Your task to perform on an android device: toggle location history Image 0: 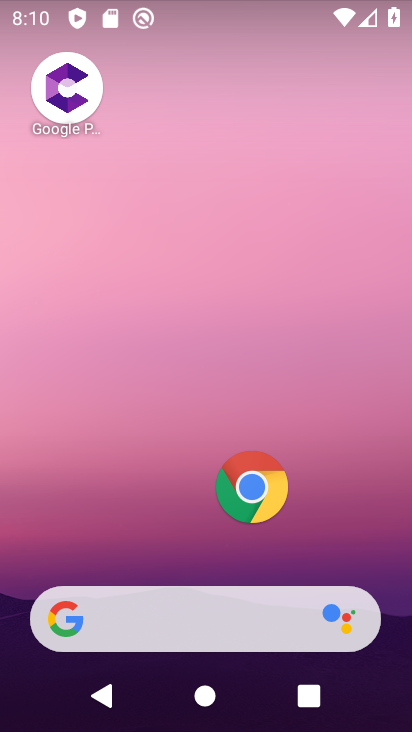
Step 0: drag from (130, 536) to (220, 88)
Your task to perform on an android device: toggle location history Image 1: 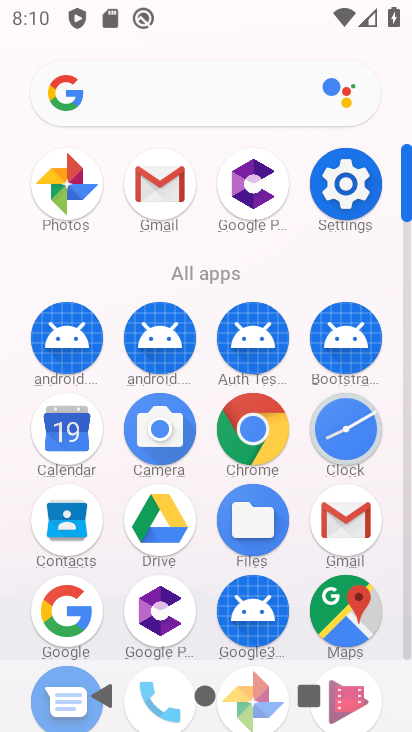
Step 1: click (355, 197)
Your task to perform on an android device: toggle location history Image 2: 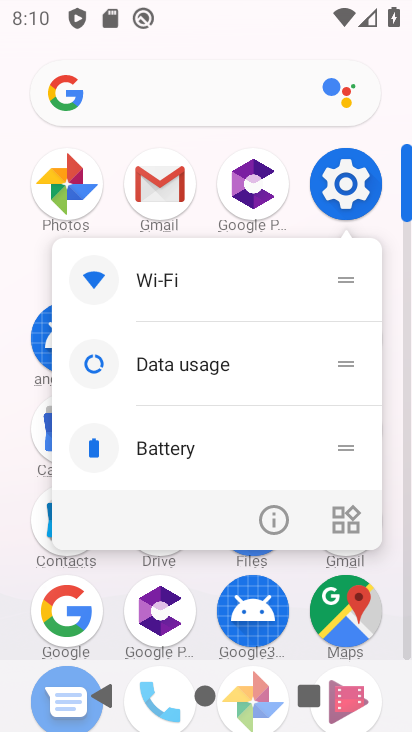
Step 2: click (353, 180)
Your task to perform on an android device: toggle location history Image 3: 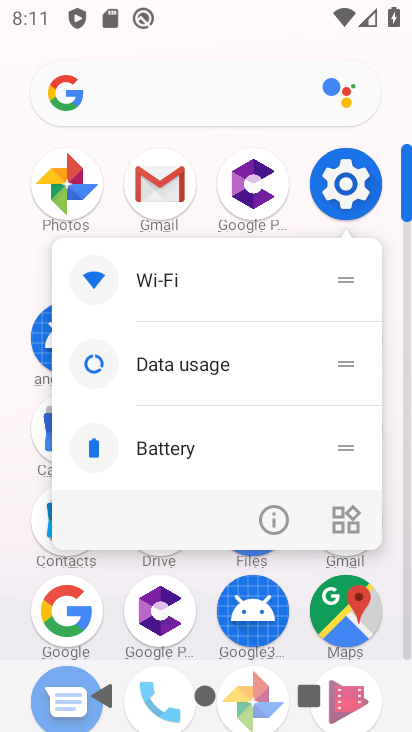
Step 3: click (342, 199)
Your task to perform on an android device: toggle location history Image 4: 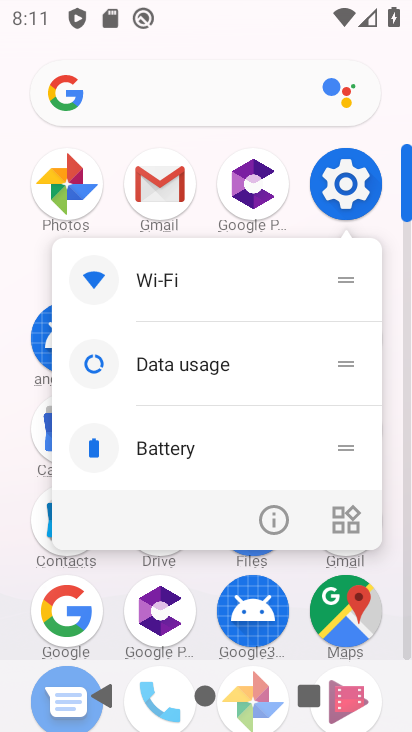
Step 4: click (333, 147)
Your task to perform on an android device: toggle location history Image 5: 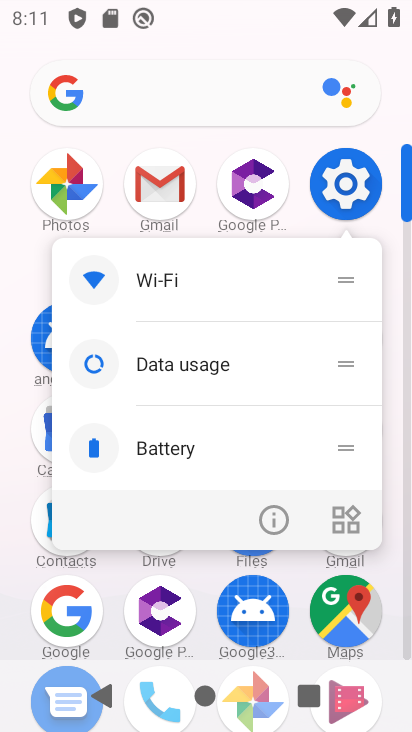
Step 5: click (350, 178)
Your task to perform on an android device: toggle location history Image 6: 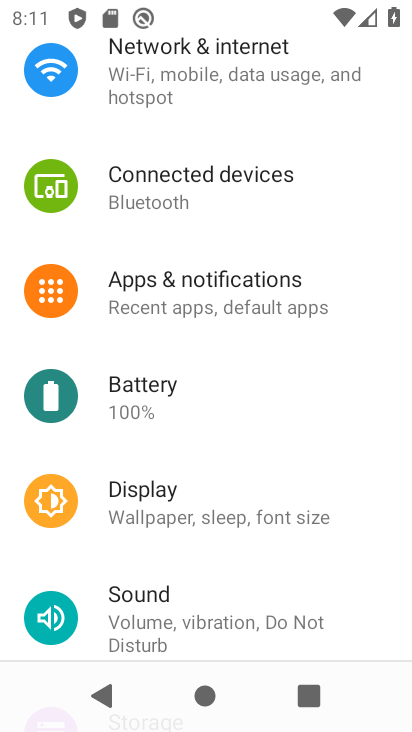
Step 6: drag from (200, 640) to (322, 203)
Your task to perform on an android device: toggle location history Image 7: 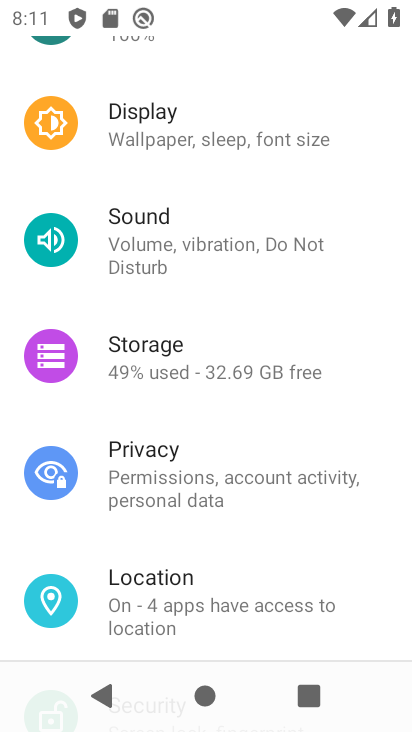
Step 7: click (182, 601)
Your task to perform on an android device: toggle location history Image 8: 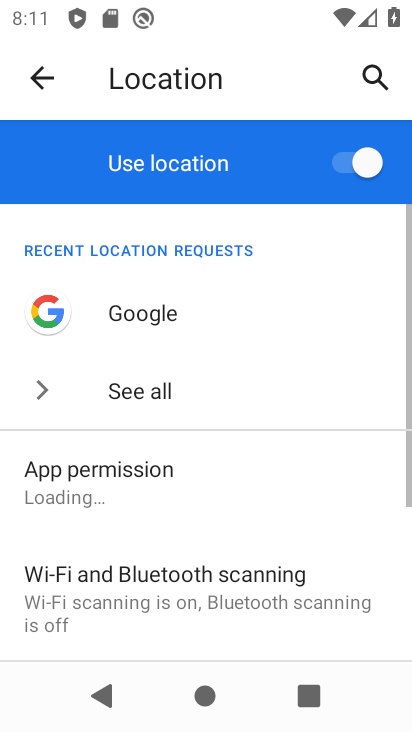
Step 8: drag from (201, 595) to (321, 179)
Your task to perform on an android device: toggle location history Image 9: 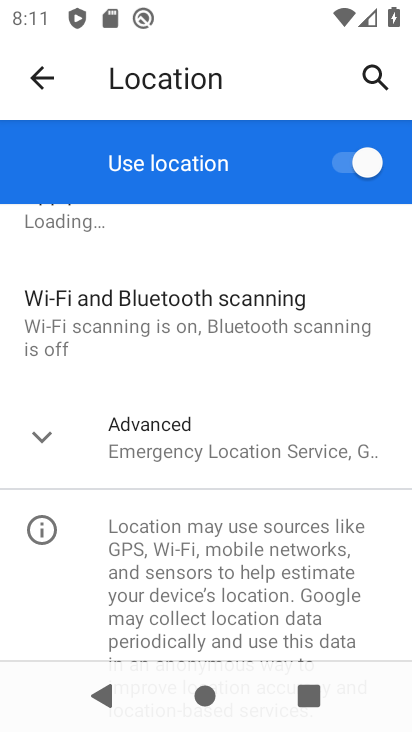
Step 9: click (235, 445)
Your task to perform on an android device: toggle location history Image 10: 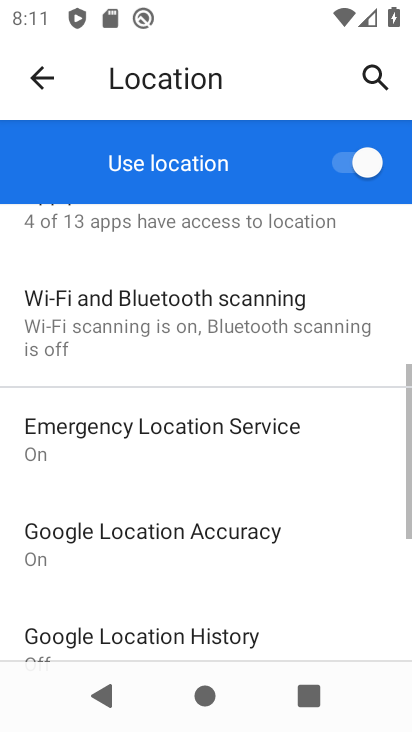
Step 10: drag from (238, 597) to (322, 310)
Your task to perform on an android device: toggle location history Image 11: 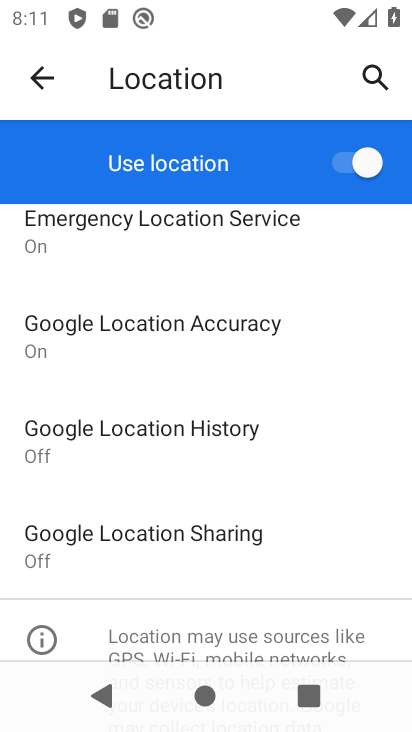
Step 11: click (163, 453)
Your task to perform on an android device: toggle location history Image 12: 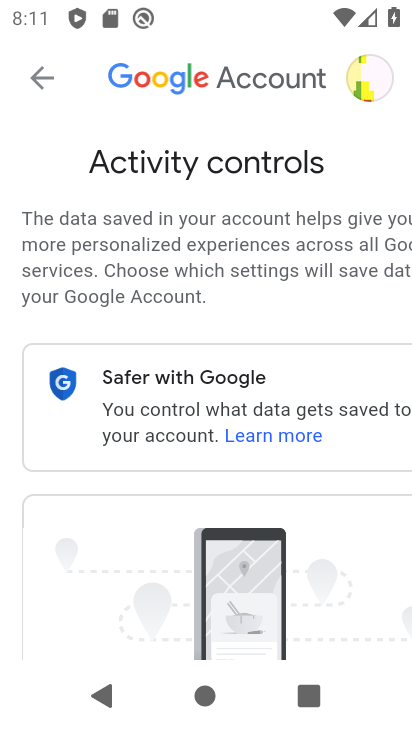
Step 12: drag from (297, 538) to (348, 289)
Your task to perform on an android device: toggle location history Image 13: 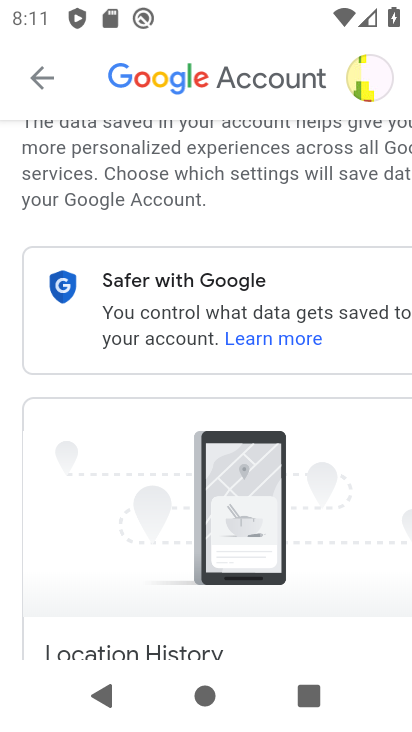
Step 13: drag from (351, 533) to (409, 244)
Your task to perform on an android device: toggle location history Image 14: 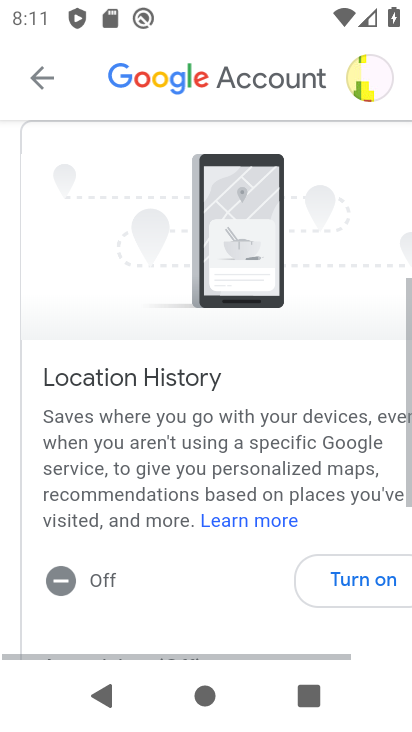
Step 14: click (367, 545)
Your task to perform on an android device: toggle location history Image 15: 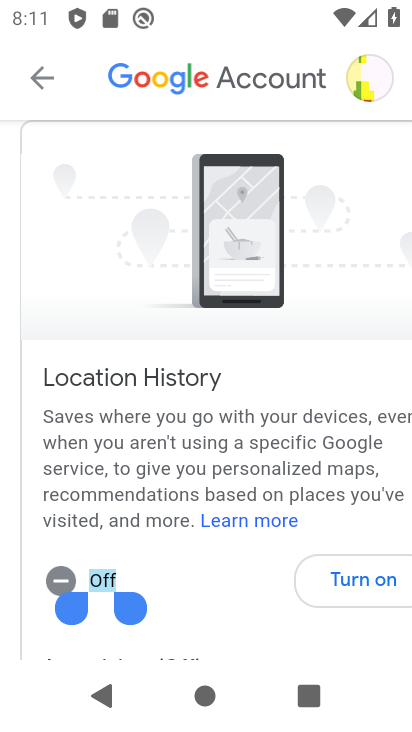
Step 15: click (362, 574)
Your task to perform on an android device: toggle location history Image 16: 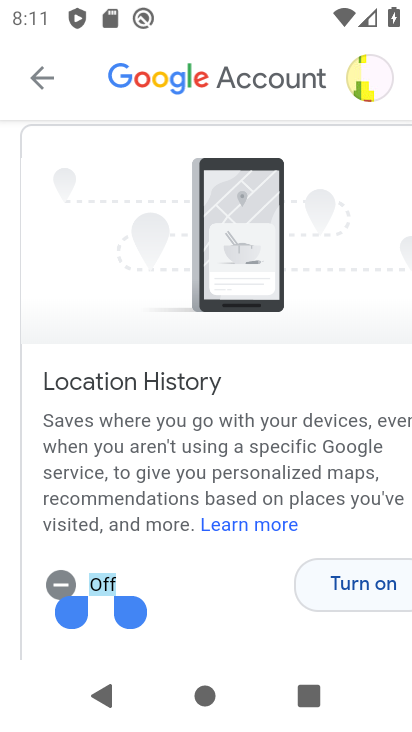
Step 16: click (380, 590)
Your task to perform on an android device: toggle location history Image 17: 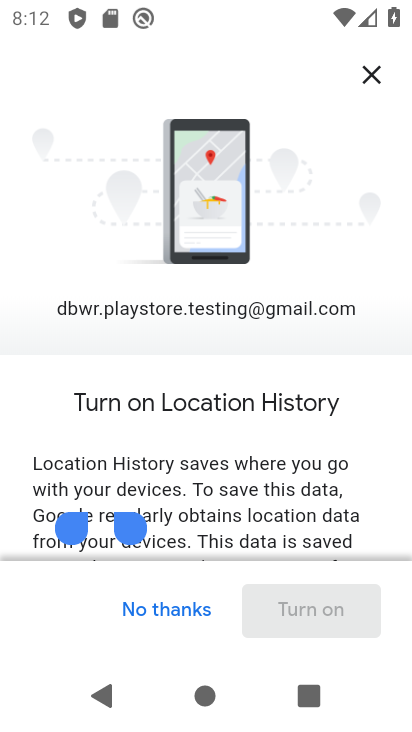
Step 17: drag from (345, 522) to (412, 161)
Your task to perform on an android device: toggle location history Image 18: 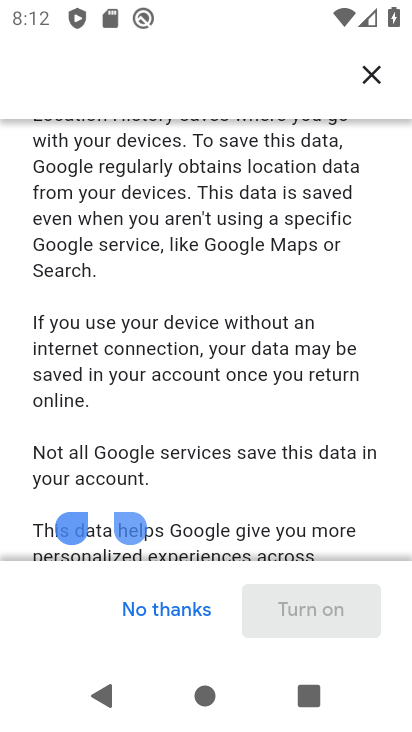
Step 18: drag from (334, 500) to (397, 209)
Your task to perform on an android device: toggle location history Image 19: 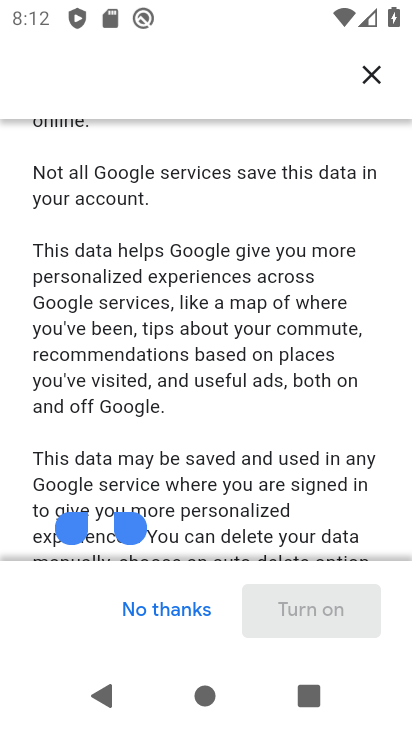
Step 19: drag from (365, 313) to (401, 189)
Your task to perform on an android device: toggle location history Image 20: 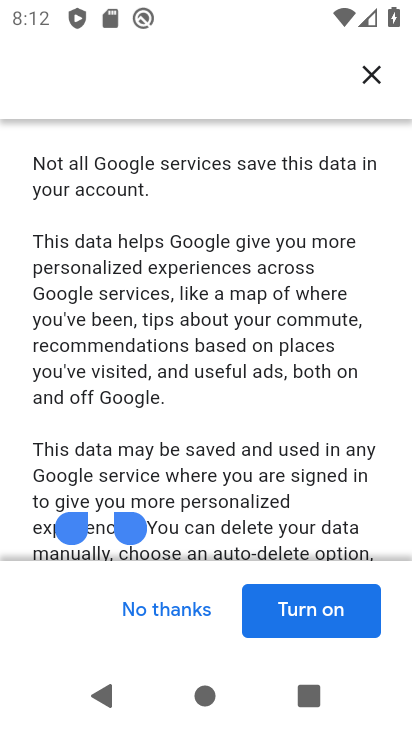
Step 20: click (336, 605)
Your task to perform on an android device: toggle location history Image 21: 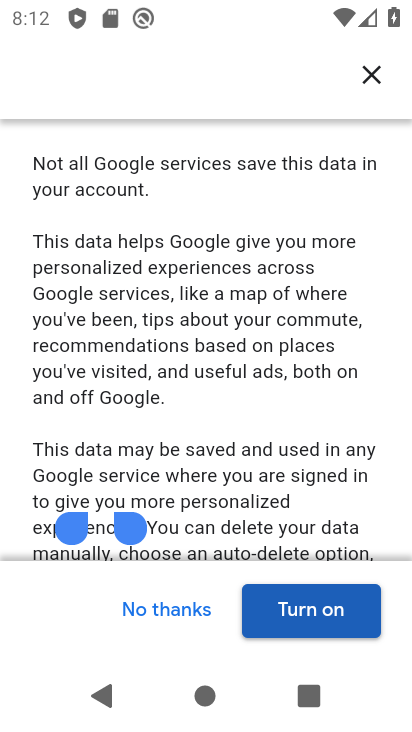
Step 21: click (322, 620)
Your task to perform on an android device: toggle location history Image 22: 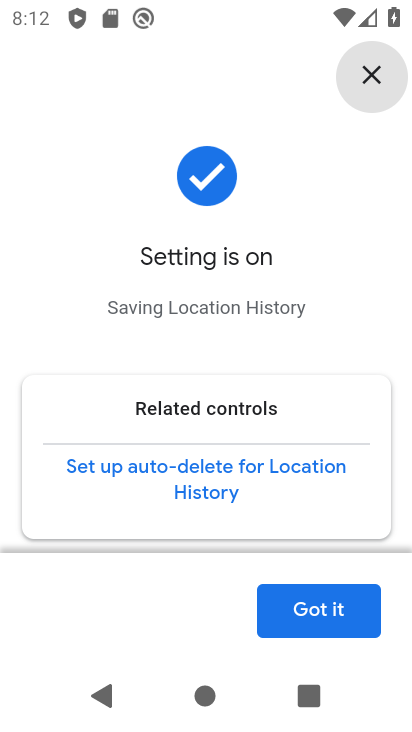
Step 22: click (337, 636)
Your task to perform on an android device: toggle location history Image 23: 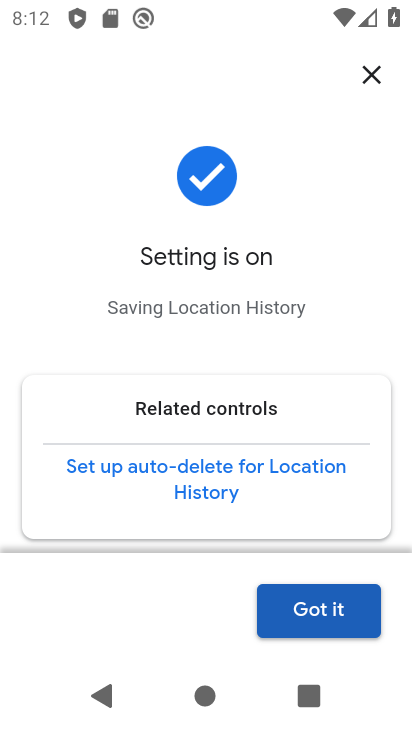
Step 23: click (337, 617)
Your task to perform on an android device: toggle location history Image 24: 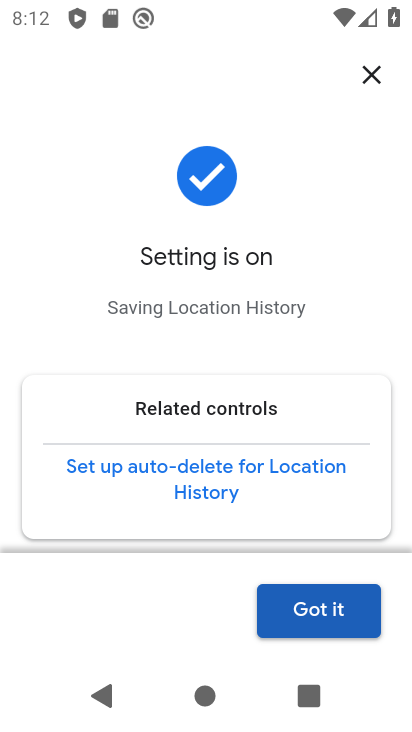
Step 24: click (336, 616)
Your task to perform on an android device: toggle location history Image 25: 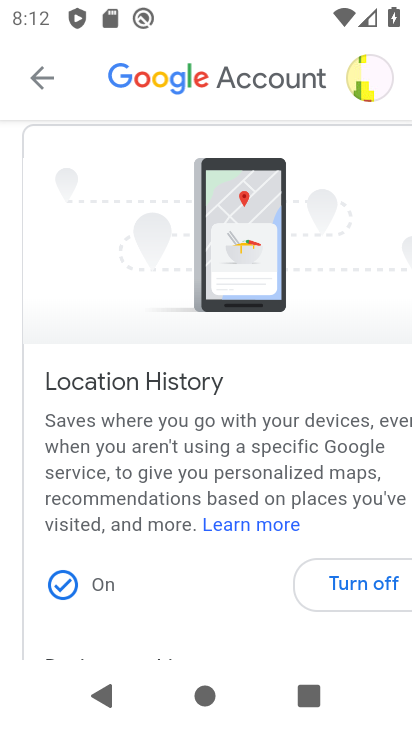
Step 25: task complete